Your task to perform on an android device: install app "DoorDash - Dasher" Image 0: 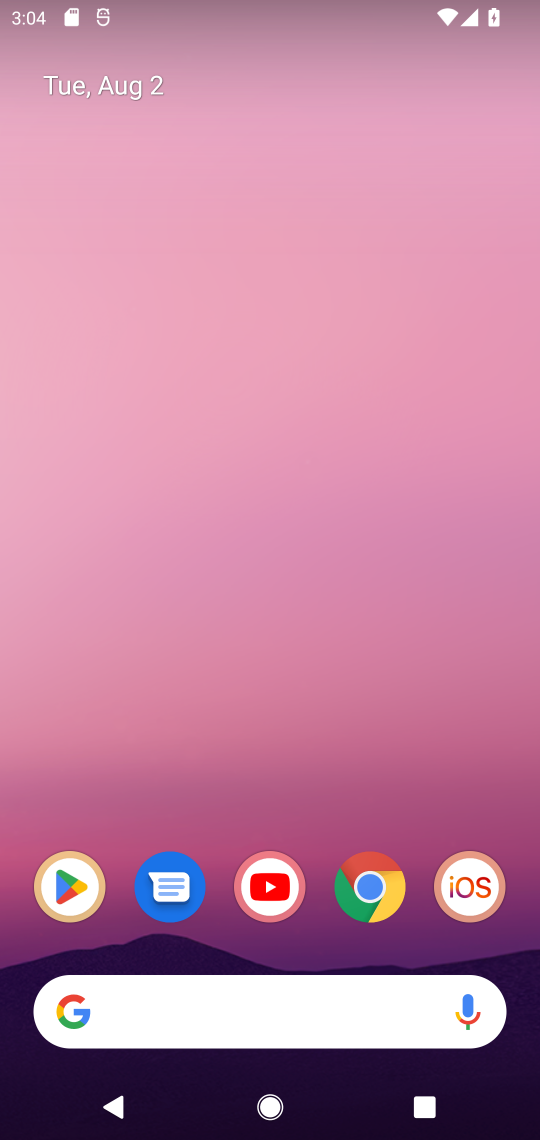
Step 0: click (57, 887)
Your task to perform on an android device: install app "DoorDash - Dasher" Image 1: 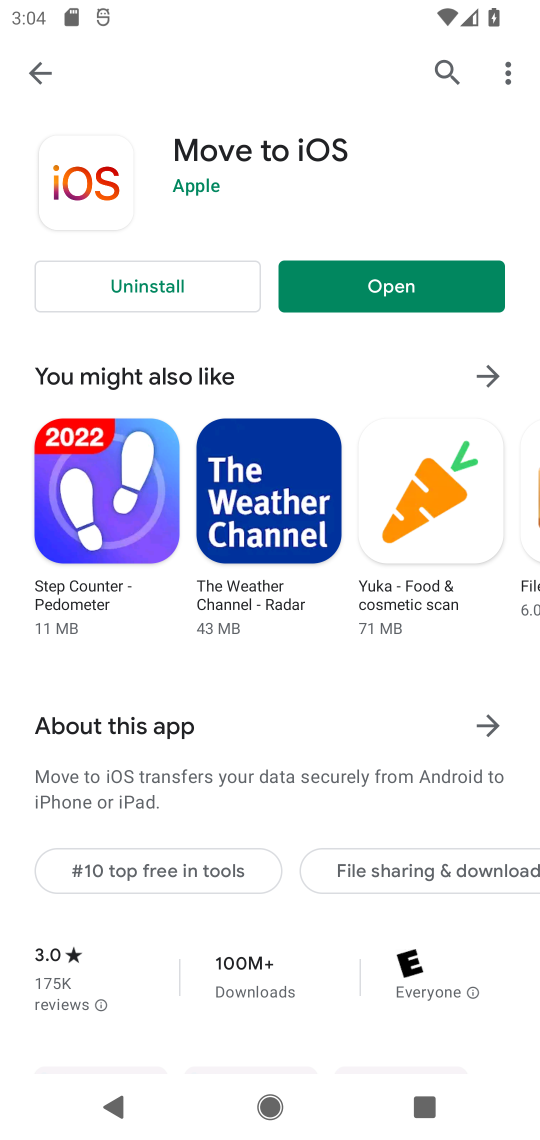
Step 1: click (45, 70)
Your task to perform on an android device: install app "DoorDash - Dasher" Image 2: 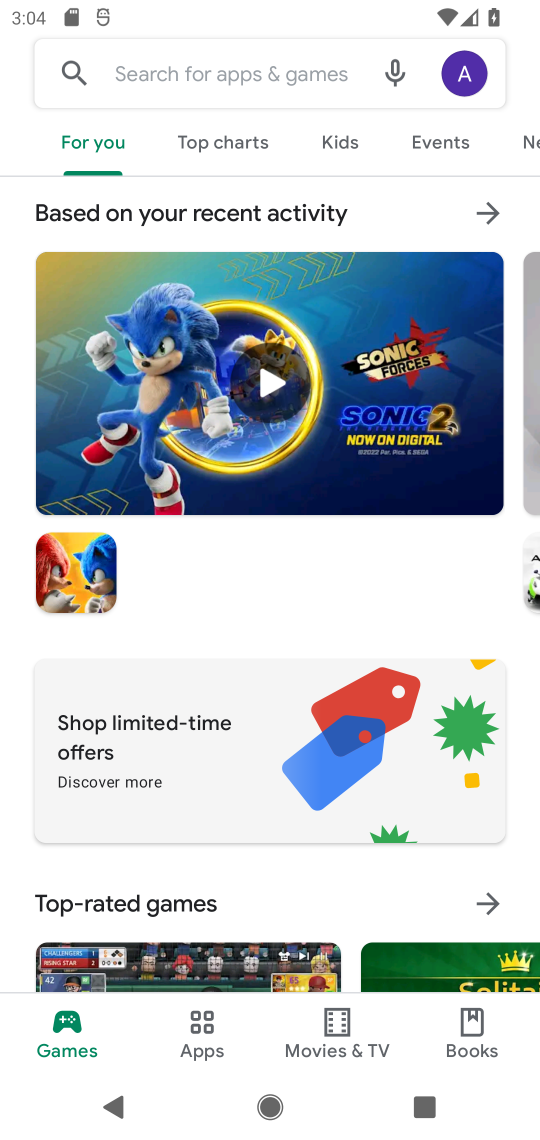
Step 2: click (153, 72)
Your task to perform on an android device: install app "DoorDash - Dasher" Image 3: 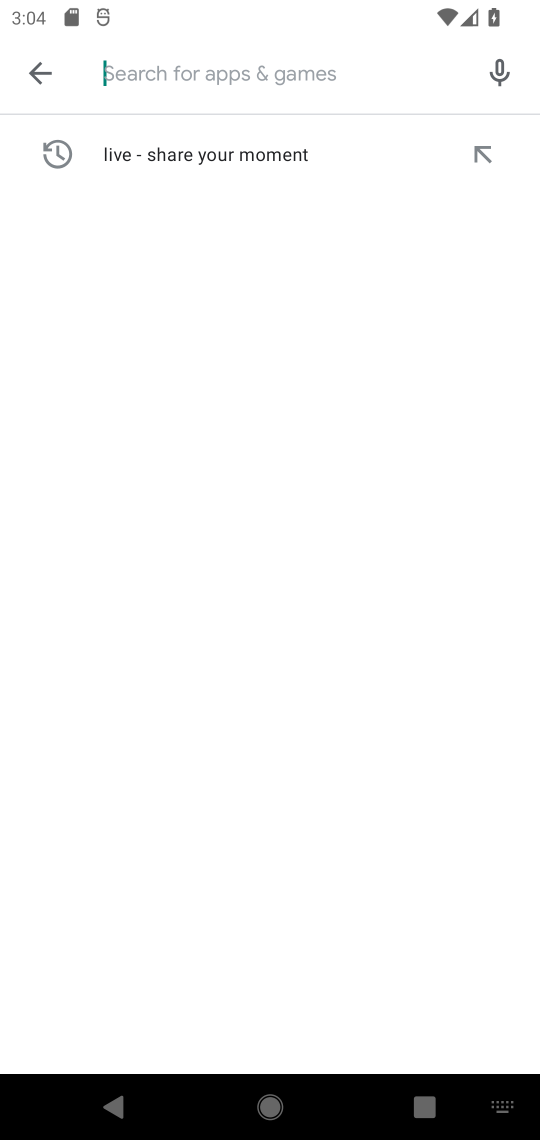
Step 3: type "DoorDash - Dasher"
Your task to perform on an android device: install app "DoorDash - Dasher" Image 4: 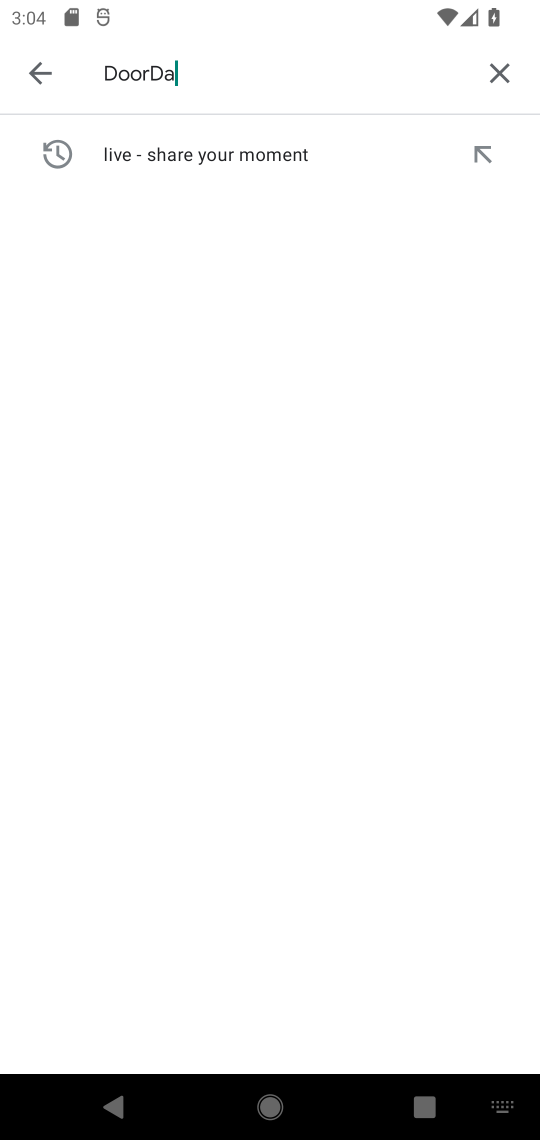
Step 4: type ""
Your task to perform on an android device: install app "DoorDash - Dasher" Image 5: 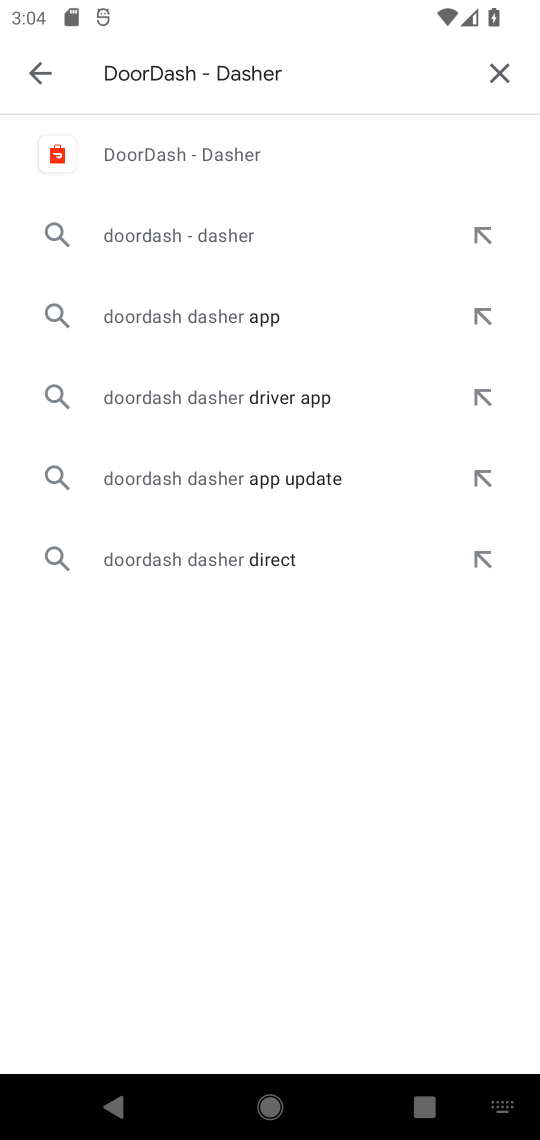
Step 5: click (243, 163)
Your task to perform on an android device: install app "DoorDash - Dasher" Image 6: 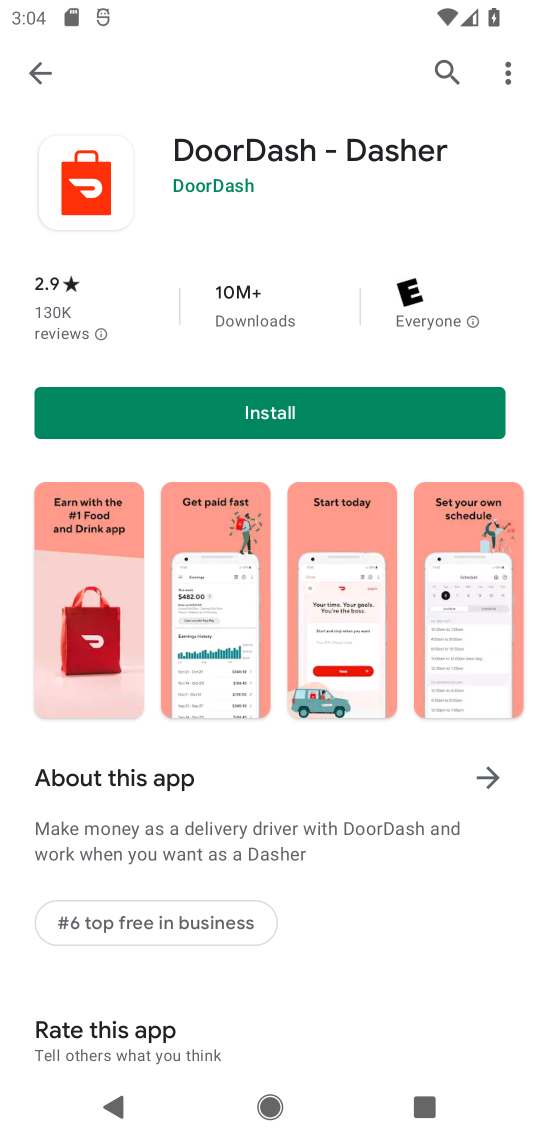
Step 6: click (167, 409)
Your task to perform on an android device: install app "DoorDash - Dasher" Image 7: 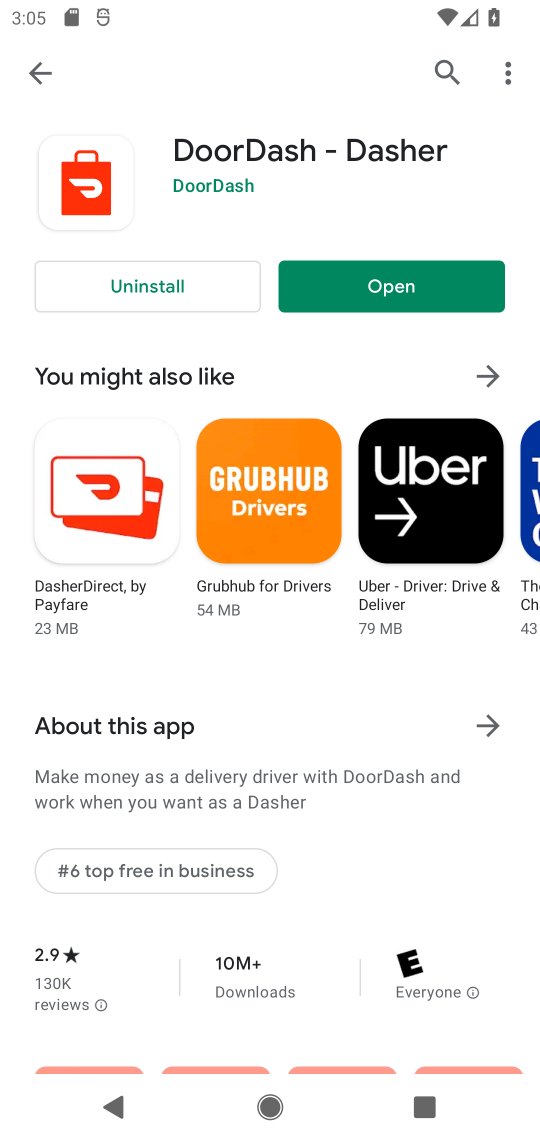
Step 7: task complete